Your task to perform on an android device: find snoozed emails in the gmail app Image 0: 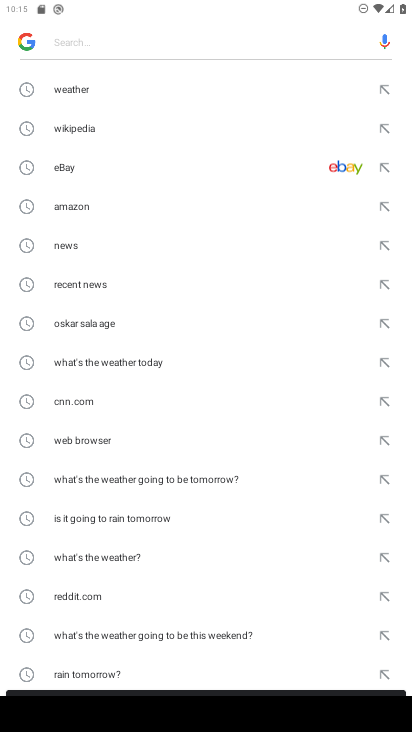
Step 0: press home button
Your task to perform on an android device: find snoozed emails in the gmail app Image 1: 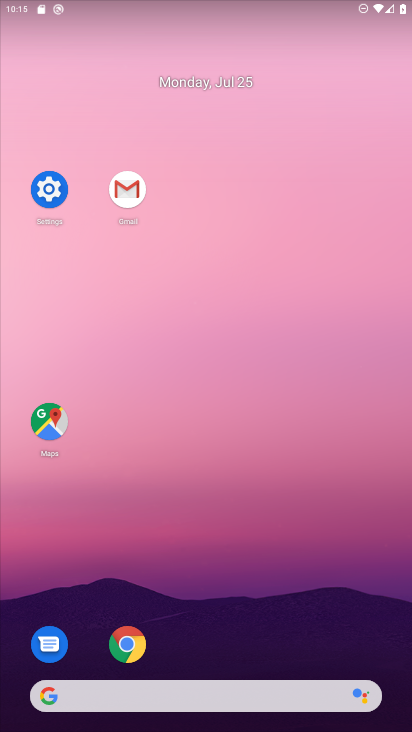
Step 1: click (123, 182)
Your task to perform on an android device: find snoozed emails in the gmail app Image 2: 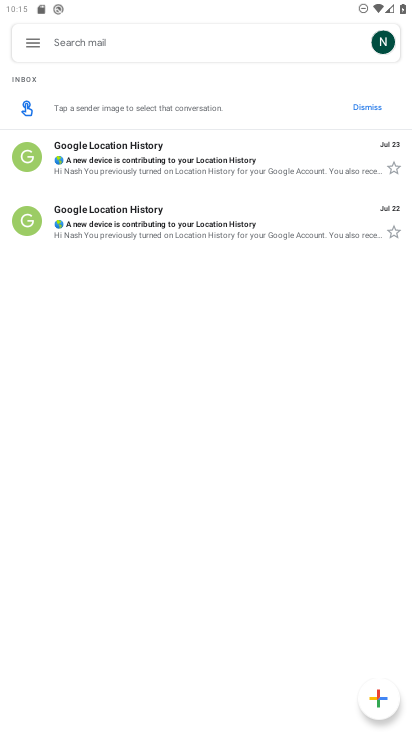
Step 2: click (32, 25)
Your task to perform on an android device: find snoozed emails in the gmail app Image 3: 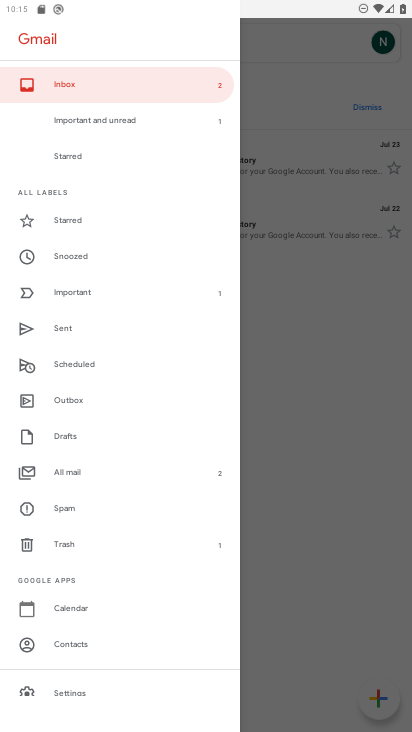
Step 3: click (117, 252)
Your task to perform on an android device: find snoozed emails in the gmail app Image 4: 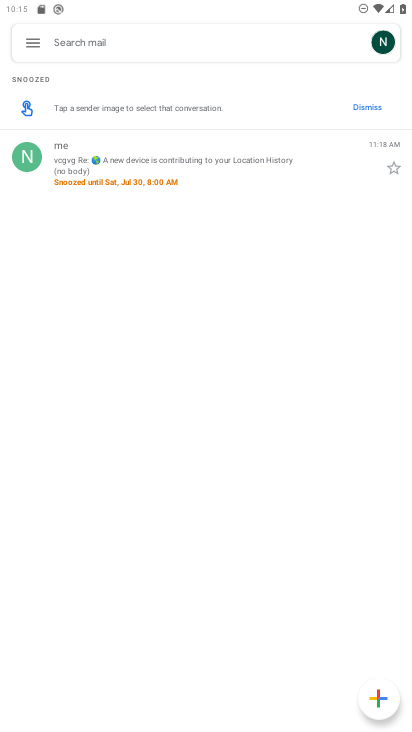
Step 4: task complete